Your task to perform on an android device: turn off javascript in the chrome app Image 0: 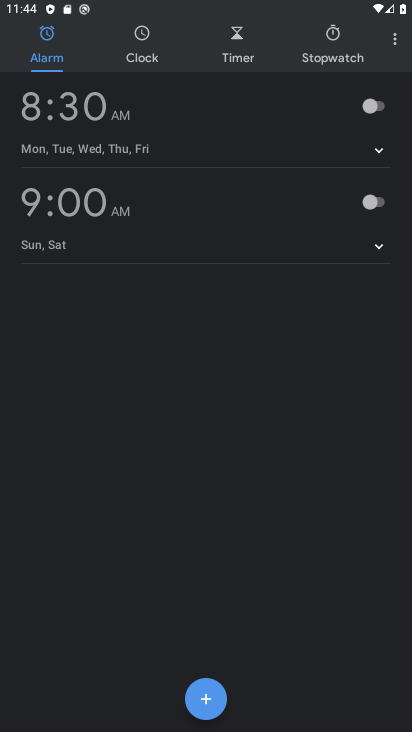
Step 0: press home button
Your task to perform on an android device: turn off javascript in the chrome app Image 1: 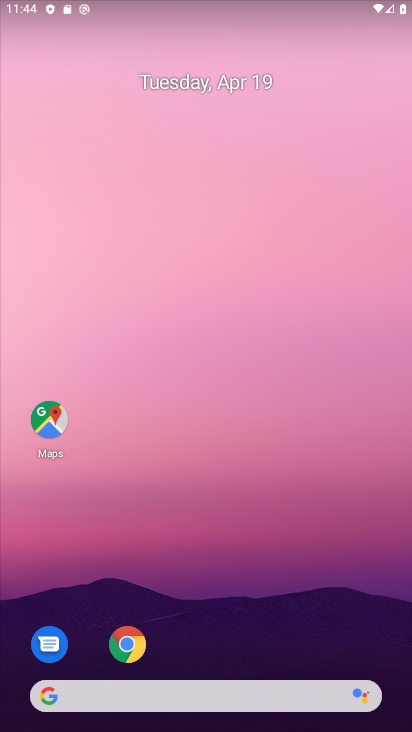
Step 1: click (129, 640)
Your task to perform on an android device: turn off javascript in the chrome app Image 2: 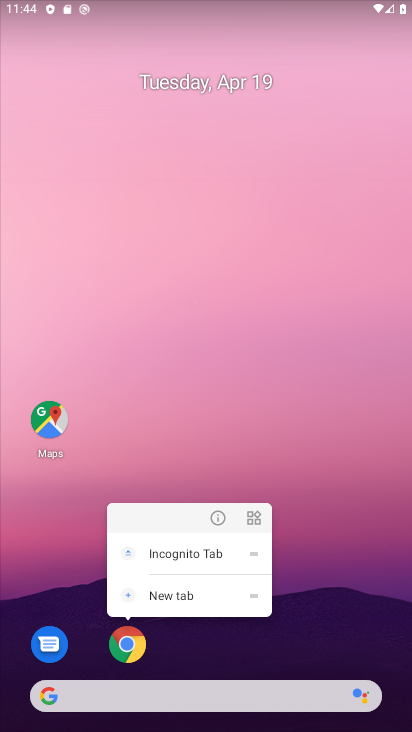
Step 2: click (129, 640)
Your task to perform on an android device: turn off javascript in the chrome app Image 3: 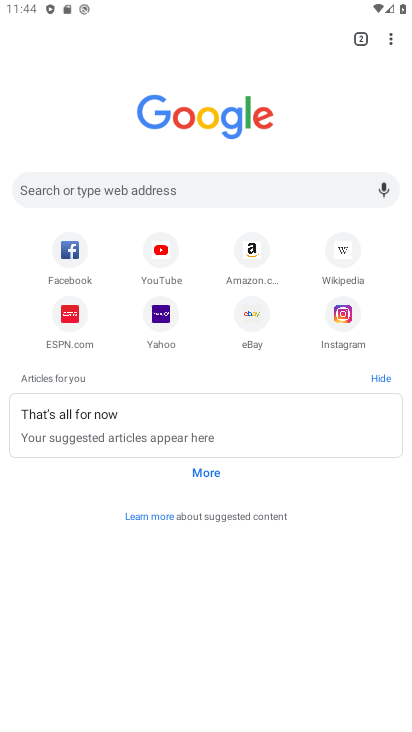
Step 3: click (386, 37)
Your task to perform on an android device: turn off javascript in the chrome app Image 4: 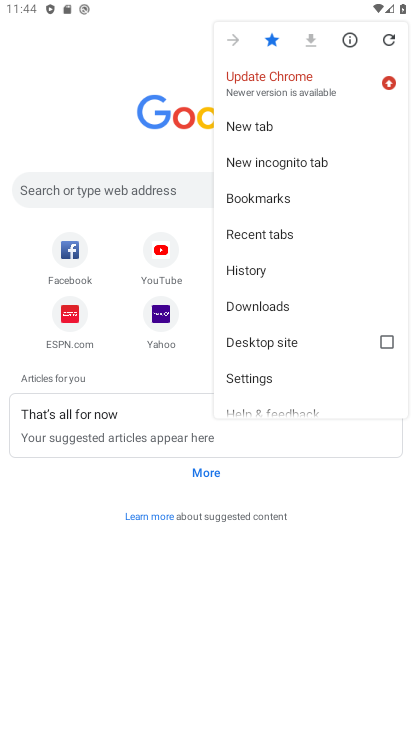
Step 4: click (288, 373)
Your task to perform on an android device: turn off javascript in the chrome app Image 5: 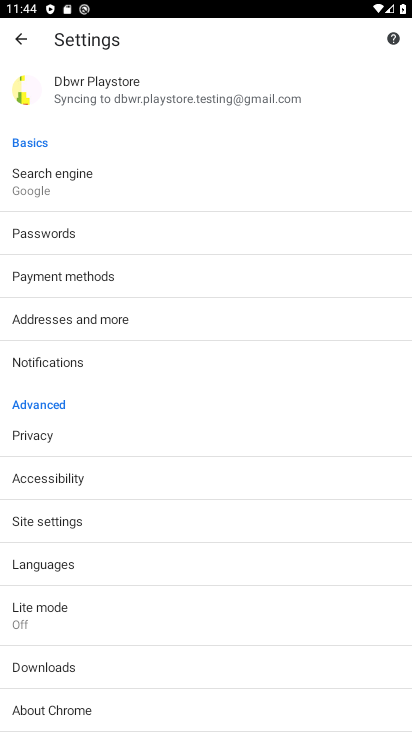
Step 5: click (79, 518)
Your task to perform on an android device: turn off javascript in the chrome app Image 6: 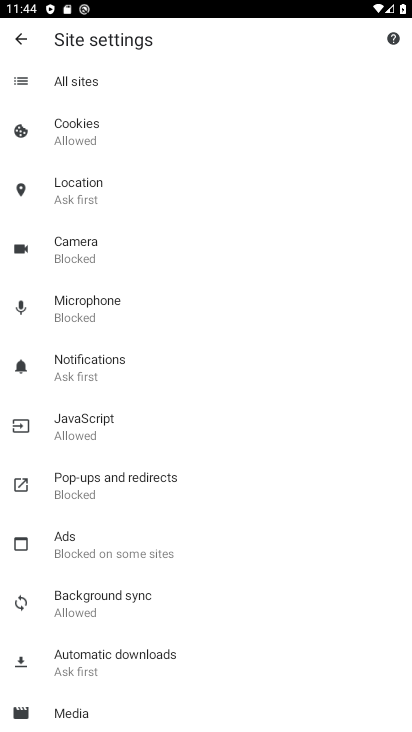
Step 6: click (108, 411)
Your task to perform on an android device: turn off javascript in the chrome app Image 7: 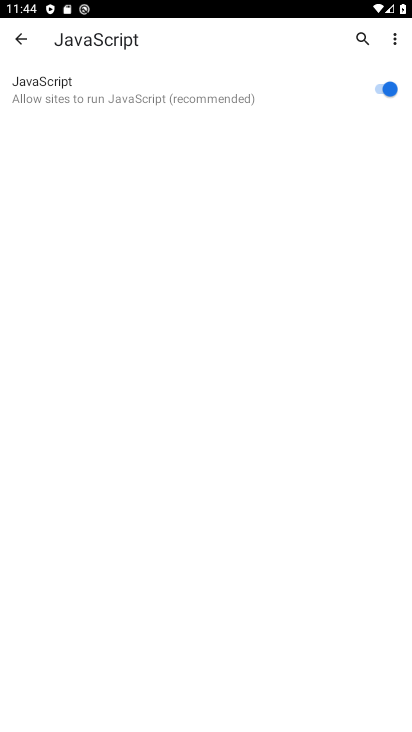
Step 7: click (380, 81)
Your task to perform on an android device: turn off javascript in the chrome app Image 8: 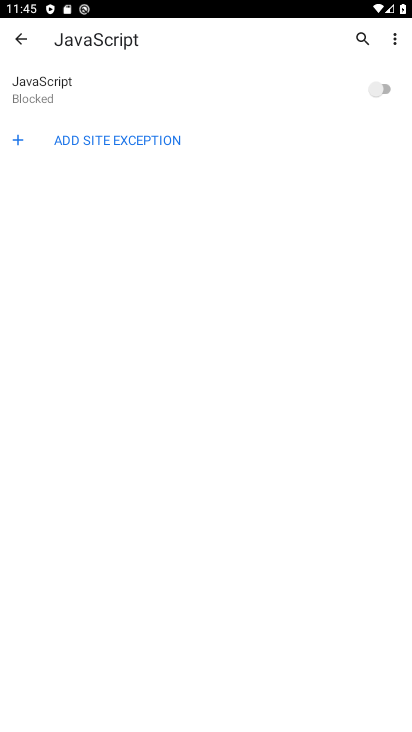
Step 8: task complete